Your task to perform on an android device: Open Google Chrome and click the shortcut for Amazon.com Image 0: 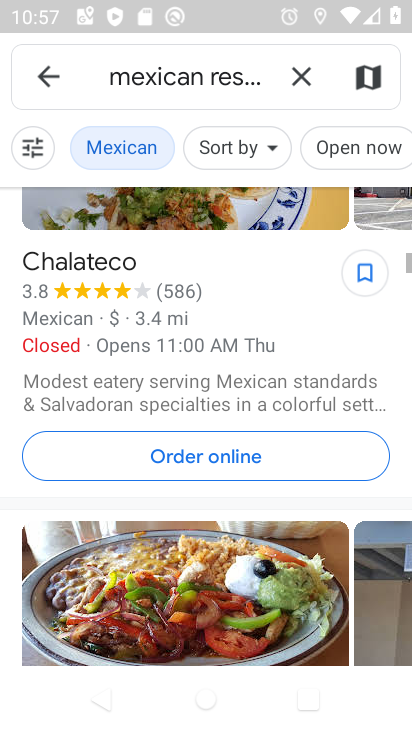
Step 0: press home button
Your task to perform on an android device: Open Google Chrome and click the shortcut for Amazon.com Image 1: 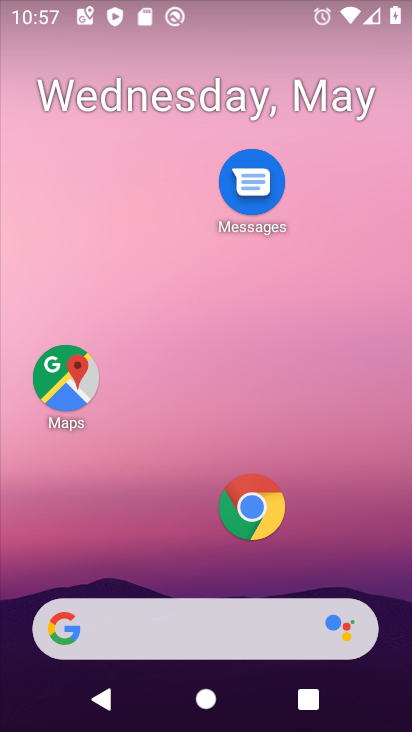
Step 1: click (249, 499)
Your task to perform on an android device: Open Google Chrome and click the shortcut for Amazon.com Image 2: 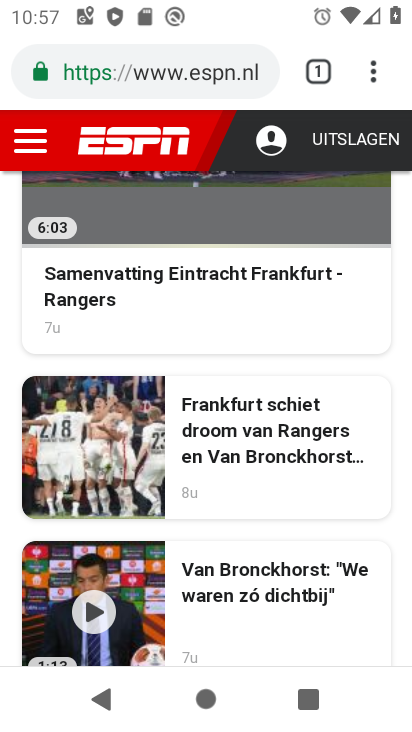
Step 2: click (316, 60)
Your task to perform on an android device: Open Google Chrome and click the shortcut for Amazon.com Image 3: 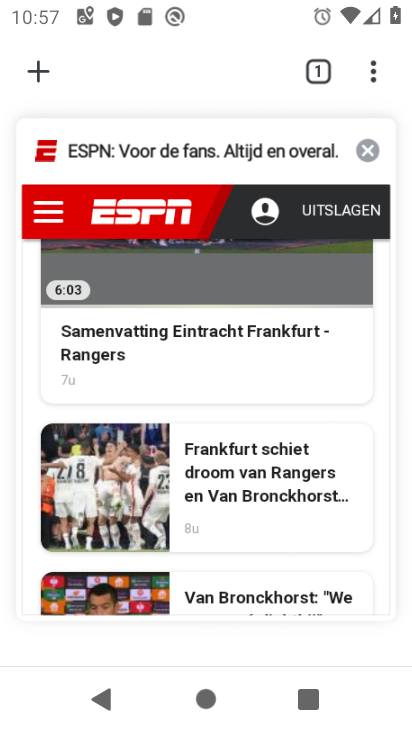
Step 3: click (366, 144)
Your task to perform on an android device: Open Google Chrome and click the shortcut for Amazon.com Image 4: 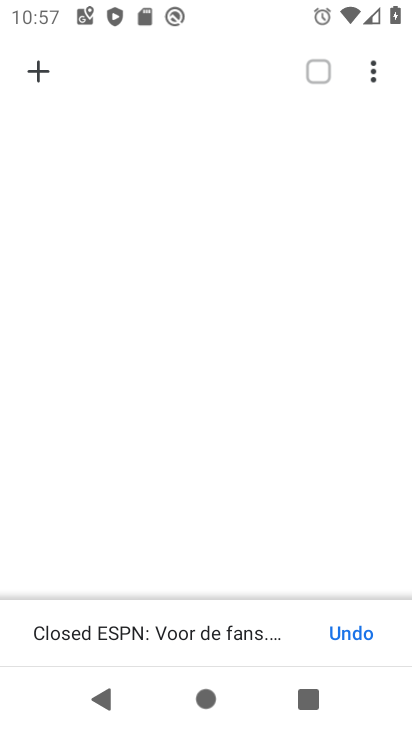
Step 4: click (45, 72)
Your task to perform on an android device: Open Google Chrome and click the shortcut for Amazon.com Image 5: 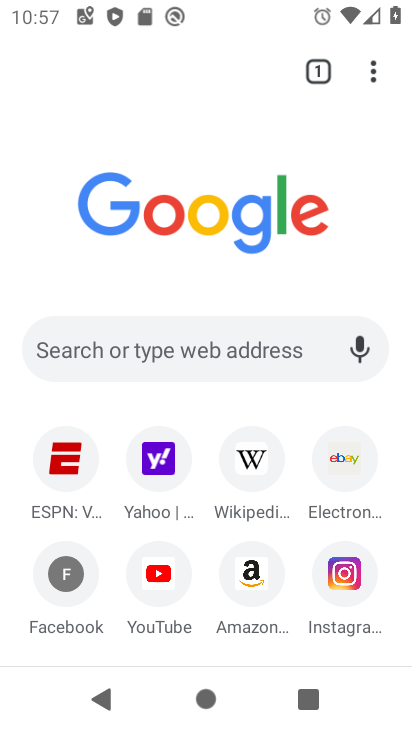
Step 5: click (250, 571)
Your task to perform on an android device: Open Google Chrome and click the shortcut for Amazon.com Image 6: 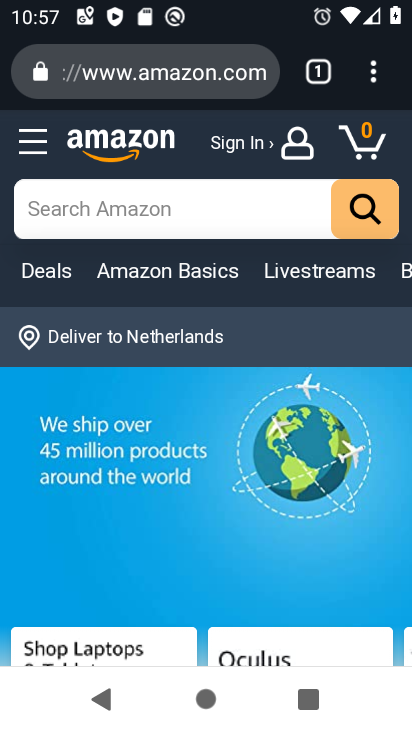
Step 6: task complete